Your task to perform on an android device: change keyboard looks Image 0: 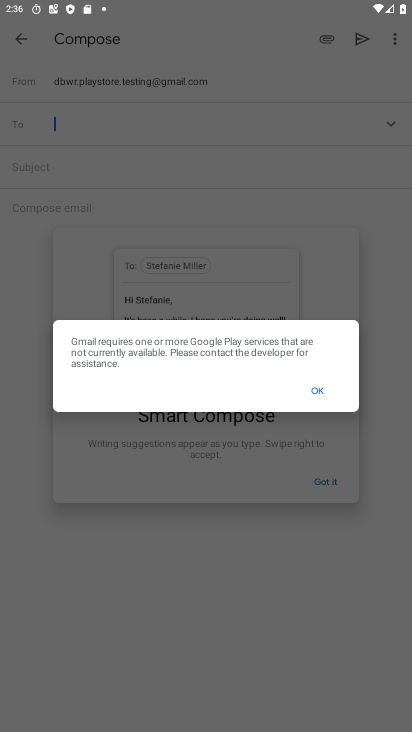
Step 0: press home button
Your task to perform on an android device: change keyboard looks Image 1: 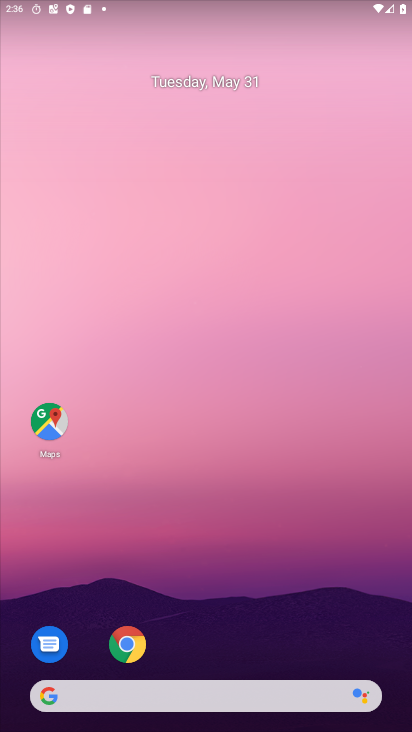
Step 1: drag from (389, 713) to (290, 120)
Your task to perform on an android device: change keyboard looks Image 2: 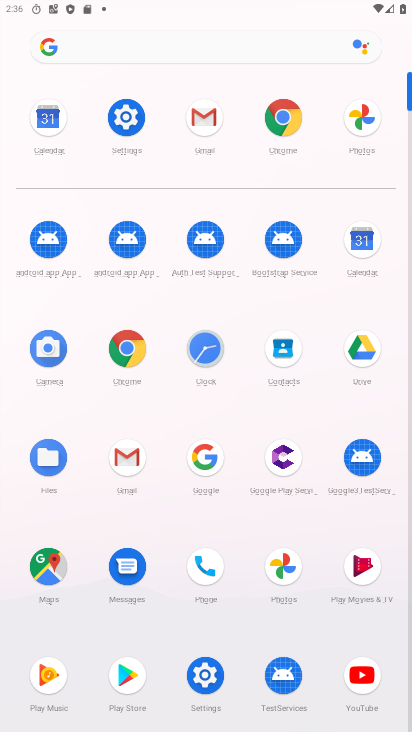
Step 2: click (125, 117)
Your task to perform on an android device: change keyboard looks Image 3: 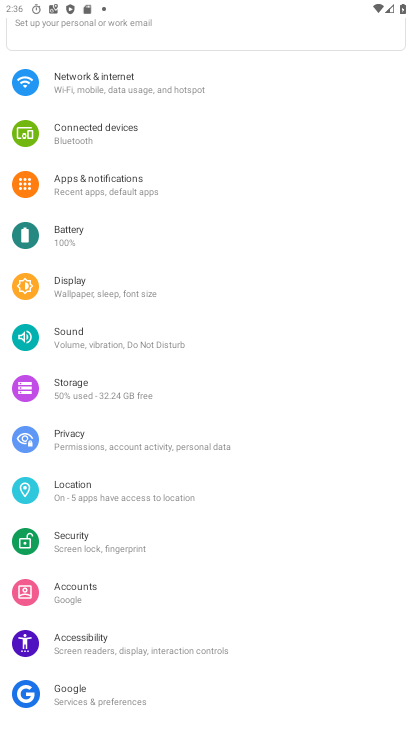
Step 3: drag from (285, 679) to (259, 384)
Your task to perform on an android device: change keyboard looks Image 4: 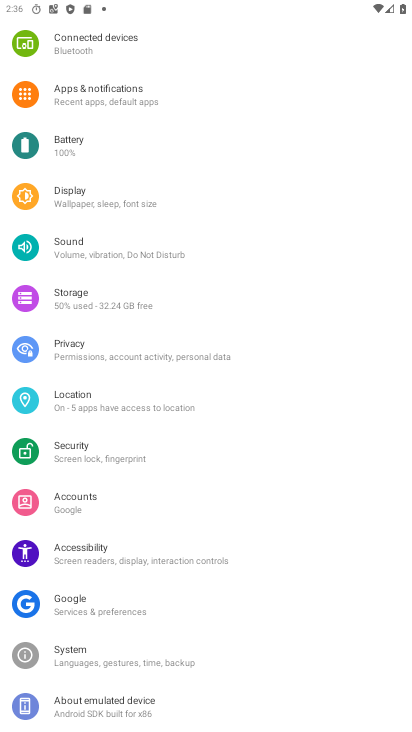
Step 4: click (94, 657)
Your task to perform on an android device: change keyboard looks Image 5: 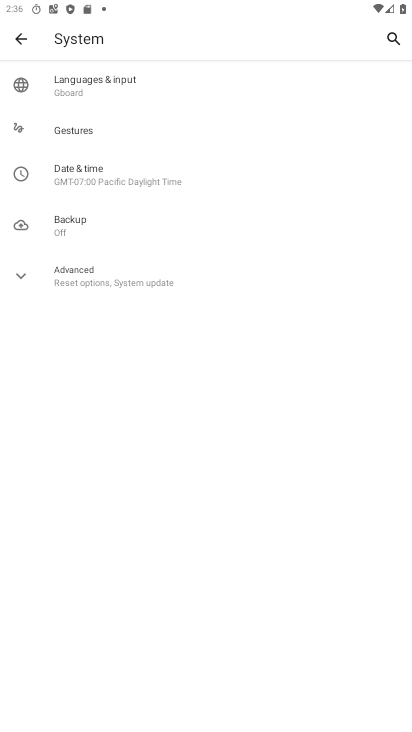
Step 5: click (107, 82)
Your task to perform on an android device: change keyboard looks Image 6: 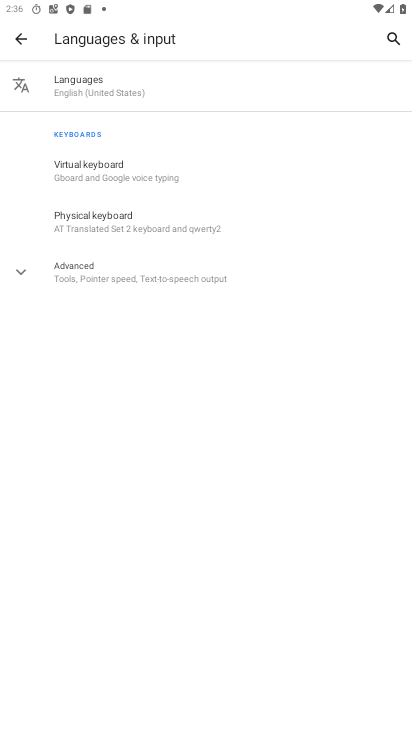
Step 6: click (92, 169)
Your task to perform on an android device: change keyboard looks Image 7: 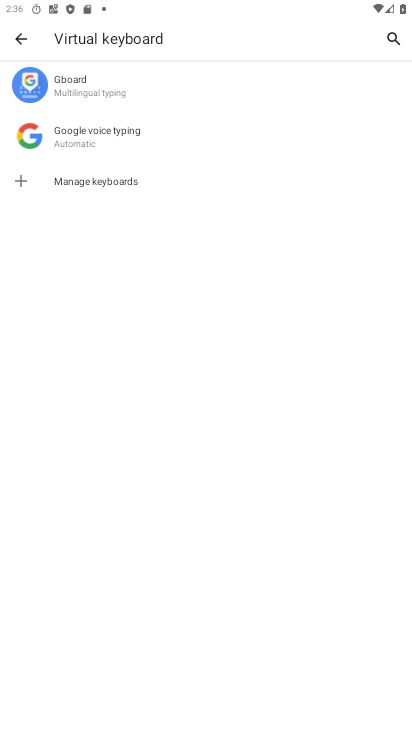
Step 7: click (67, 73)
Your task to perform on an android device: change keyboard looks Image 8: 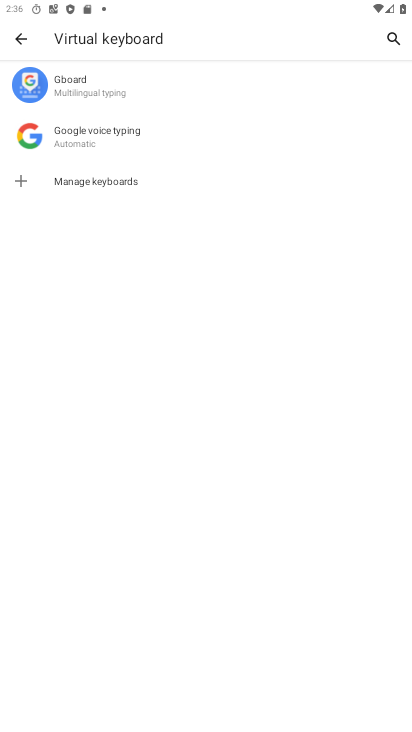
Step 8: click (84, 83)
Your task to perform on an android device: change keyboard looks Image 9: 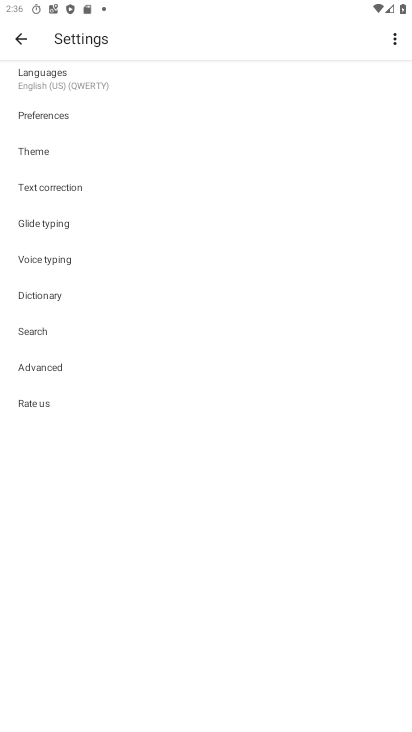
Step 9: click (43, 146)
Your task to perform on an android device: change keyboard looks Image 10: 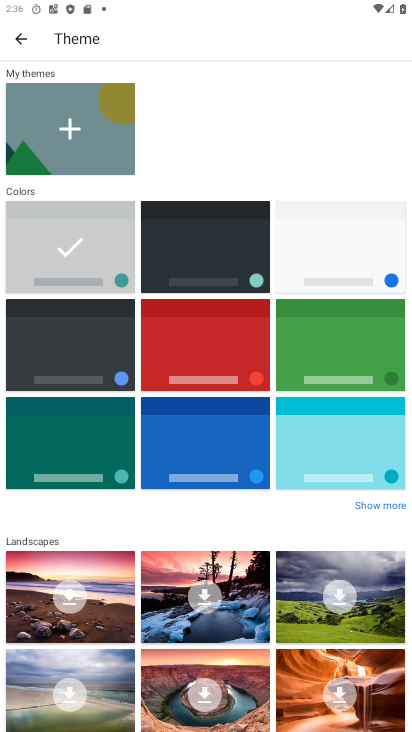
Step 10: click (177, 438)
Your task to perform on an android device: change keyboard looks Image 11: 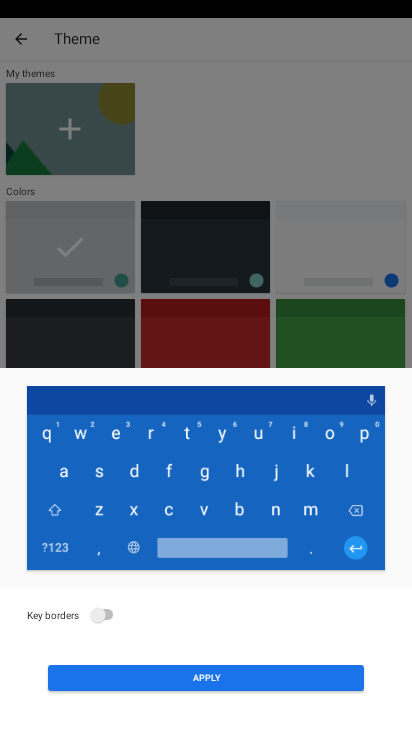
Step 11: click (108, 617)
Your task to perform on an android device: change keyboard looks Image 12: 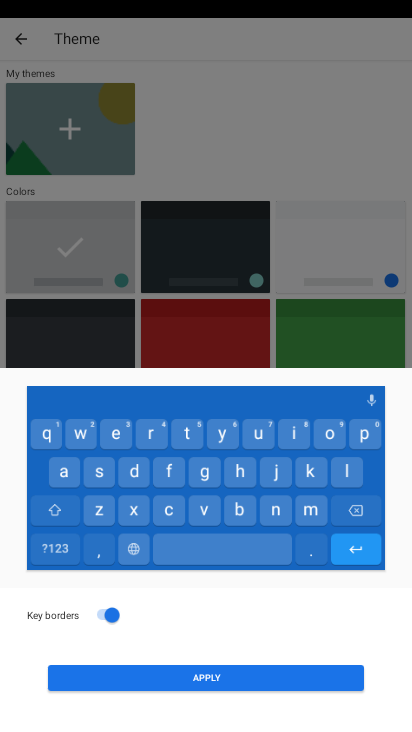
Step 12: click (181, 680)
Your task to perform on an android device: change keyboard looks Image 13: 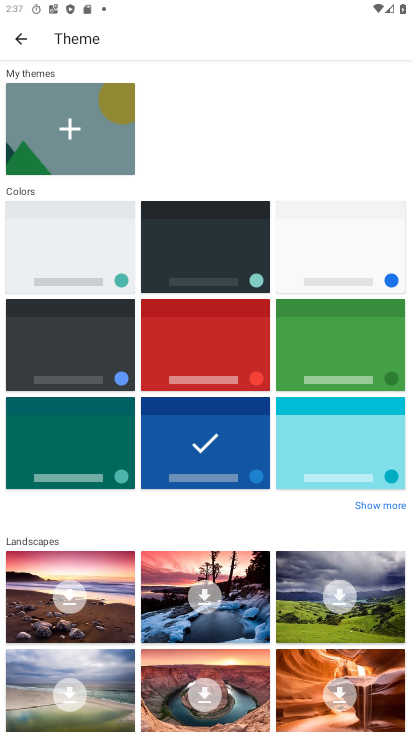
Step 13: task complete